Your task to perform on an android device: Open calendar and show me the third week of next month Image 0: 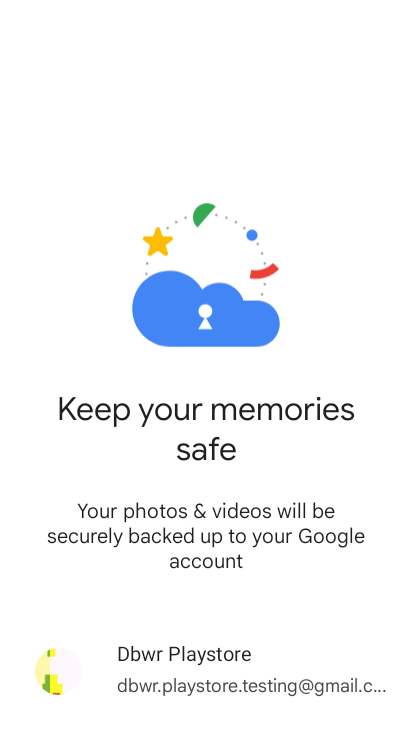
Step 0: press home button
Your task to perform on an android device: Open calendar and show me the third week of next month Image 1: 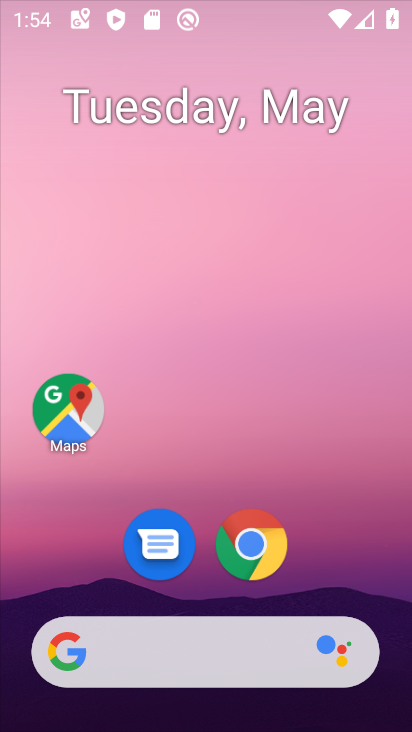
Step 1: drag from (328, 548) to (298, 95)
Your task to perform on an android device: Open calendar and show me the third week of next month Image 2: 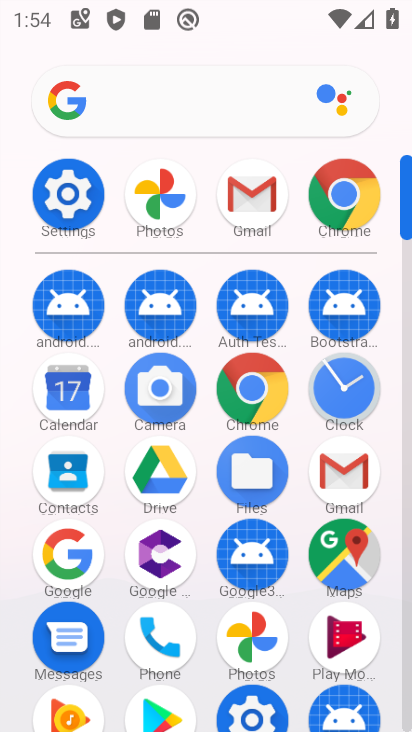
Step 2: click (62, 405)
Your task to perform on an android device: Open calendar and show me the third week of next month Image 3: 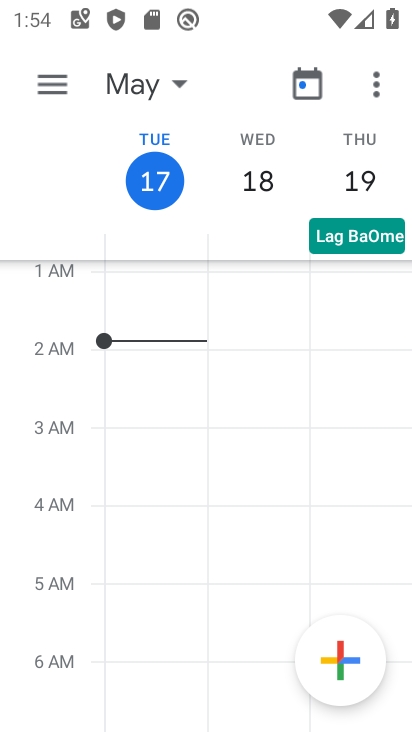
Step 3: click (147, 70)
Your task to perform on an android device: Open calendar and show me the third week of next month Image 4: 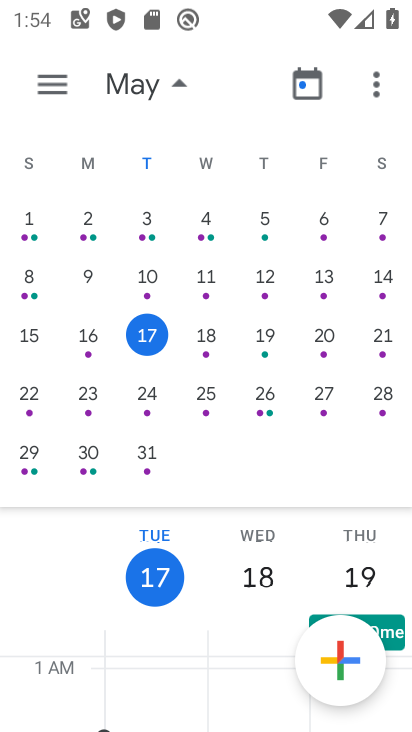
Step 4: drag from (409, 375) to (7, 391)
Your task to perform on an android device: Open calendar and show me the third week of next month Image 5: 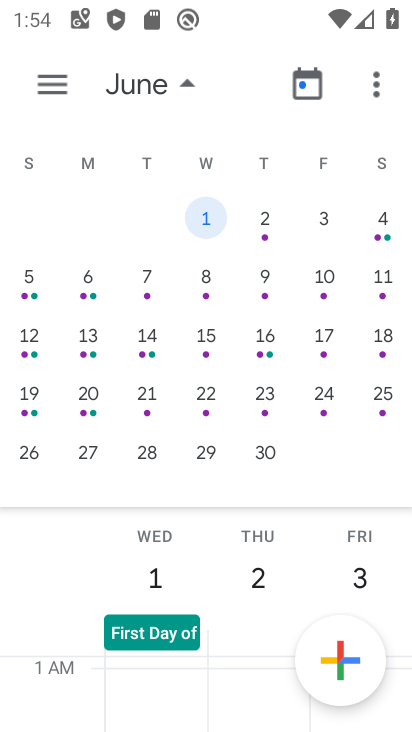
Step 5: click (30, 395)
Your task to perform on an android device: Open calendar and show me the third week of next month Image 6: 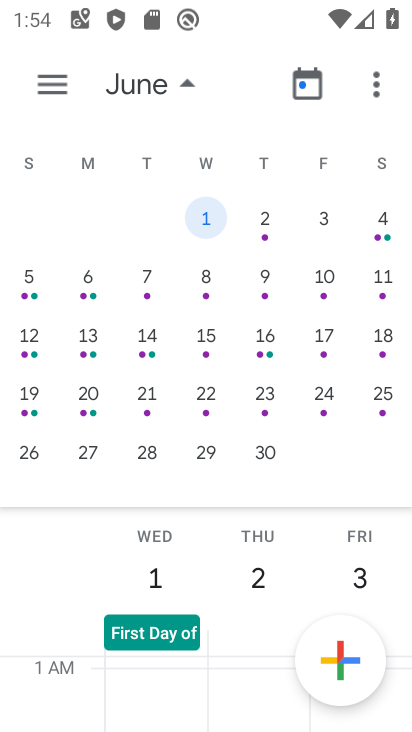
Step 6: click (25, 397)
Your task to perform on an android device: Open calendar and show me the third week of next month Image 7: 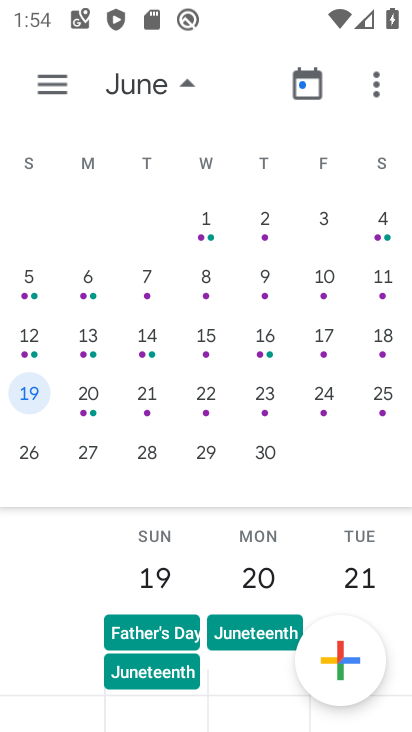
Step 7: click (28, 400)
Your task to perform on an android device: Open calendar and show me the third week of next month Image 8: 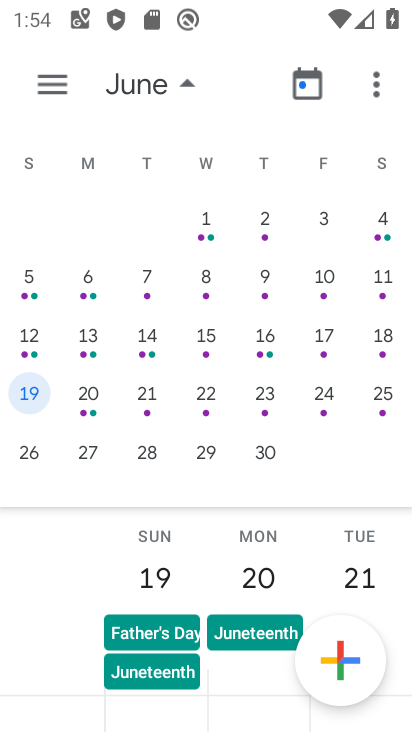
Step 8: task complete